Your task to perform on an android device: check the backup settings in the google photos Image 0: 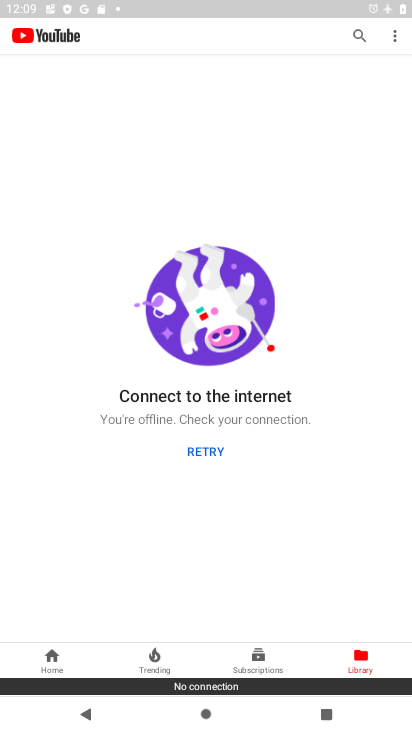
Step 0: press home button
Your task to perform on an android device: check the backup settings in the google photos Image 1: 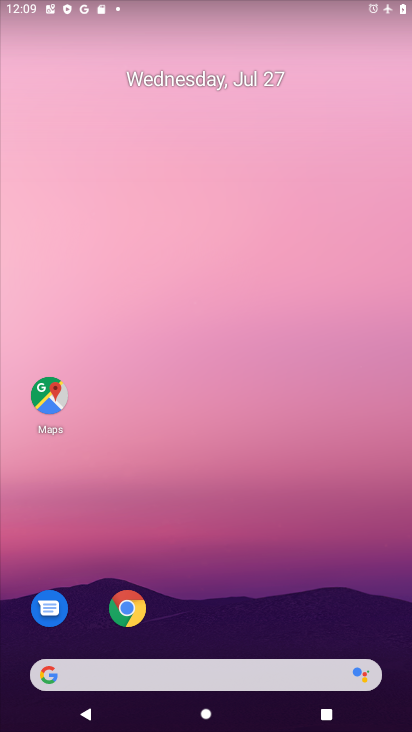
Step 1: drag from (154, 678) to (239, 130)
Your task to perform on an android device: check the backup settings in the google photos Image 2: 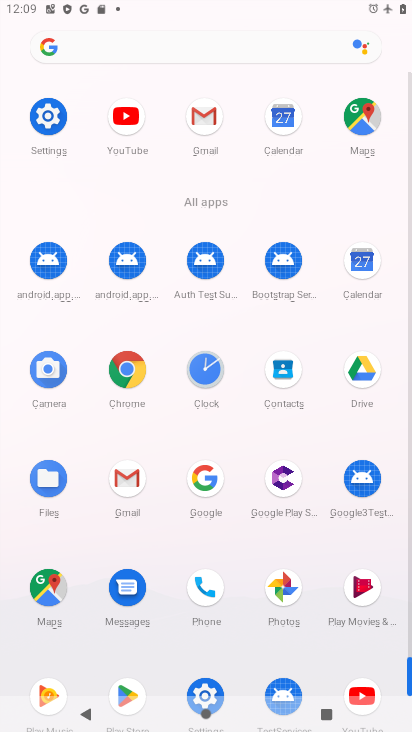
Step 2: click (282, 587)
Your task to perform on an android device: check the backup settings in the google photos Image 3: 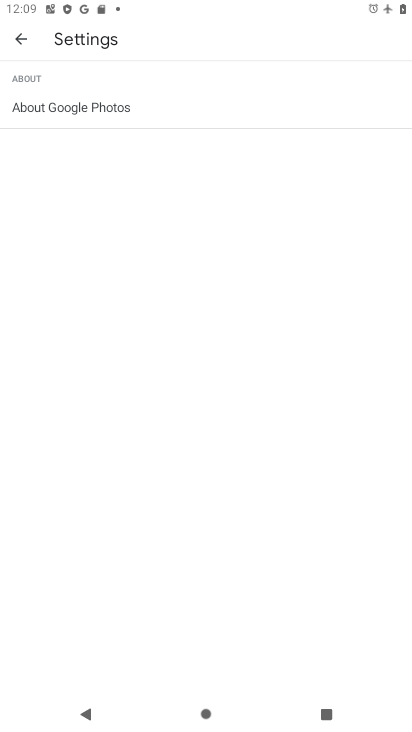
Step 3: press back button
Your task to perform on an android device: check the backup settings in the google photos Image 4: 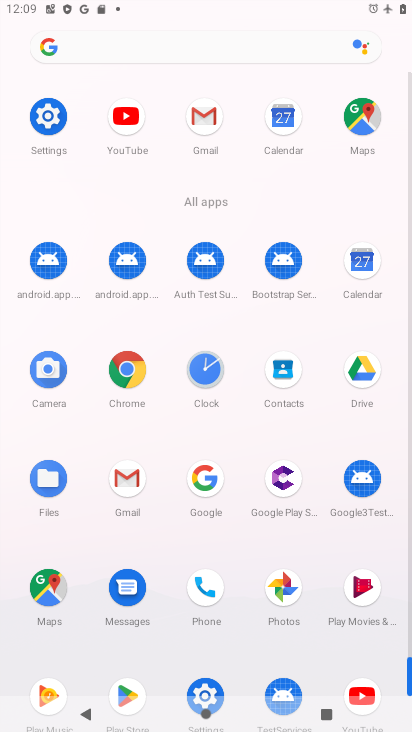
Step 4: click (283, 587)
Your task to perform on an android device: check the backup settings in the google photos Image 5: 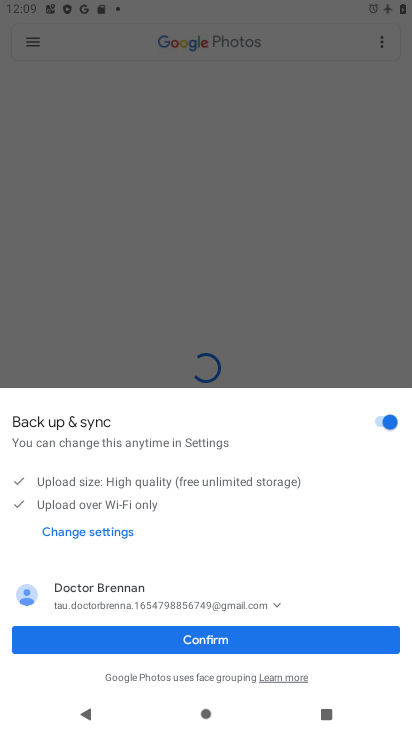
Step 5: click (229, 641)
Your task to perform on an android device: check the backup settings in the google photos Image 6: 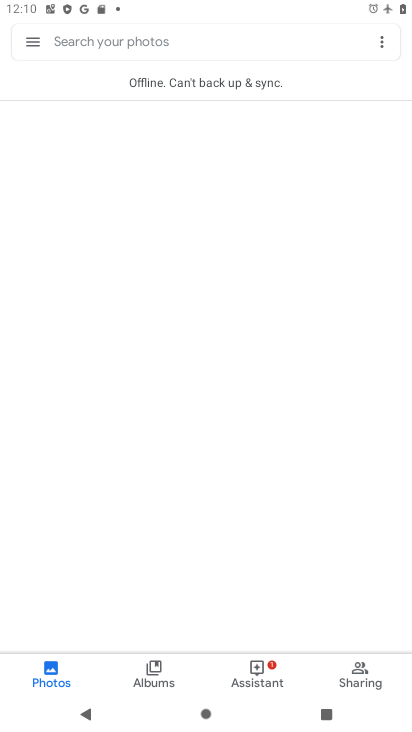
Step 6: click (26, 40)
Your task to perform on an android device: check the backup settings in the google photos Image 7: 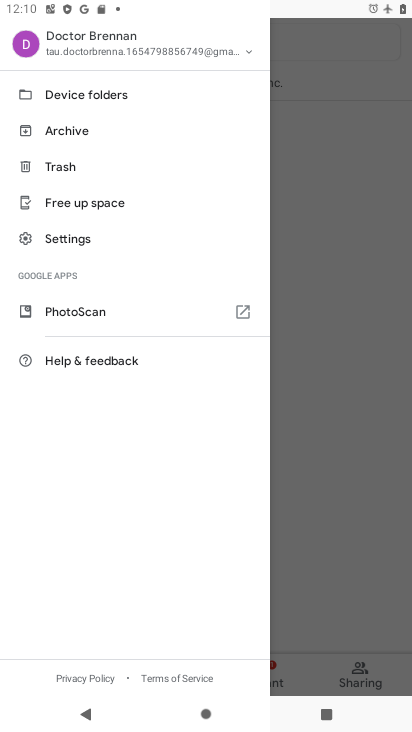
Step 7: click (85, 237)
Your task to perform on an android device: check the backup settings in the google photos Image 8: 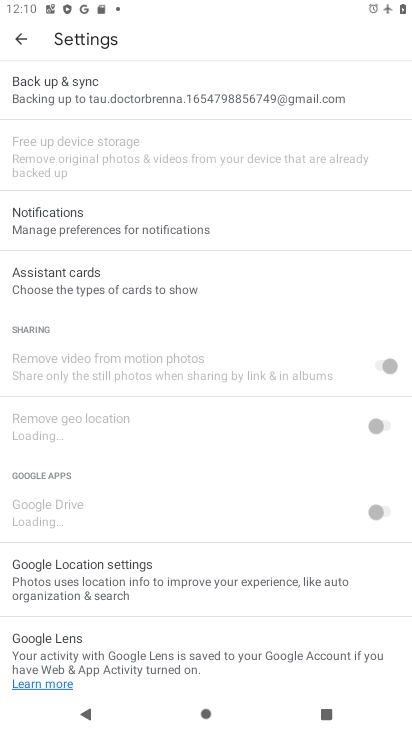
Step 8: click (183, 96)
Your task to perform on an android device: check the backup settings in the google photos Image 9: 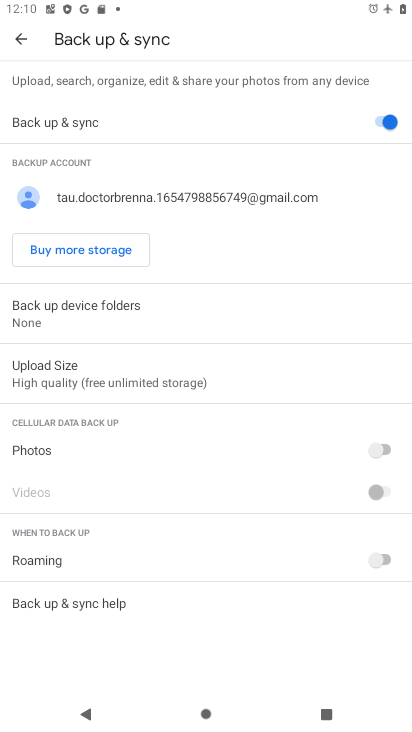
Step 9: task complete